Your task to perform on an android device: Open Youtube and go to "Your channel" Image 0: 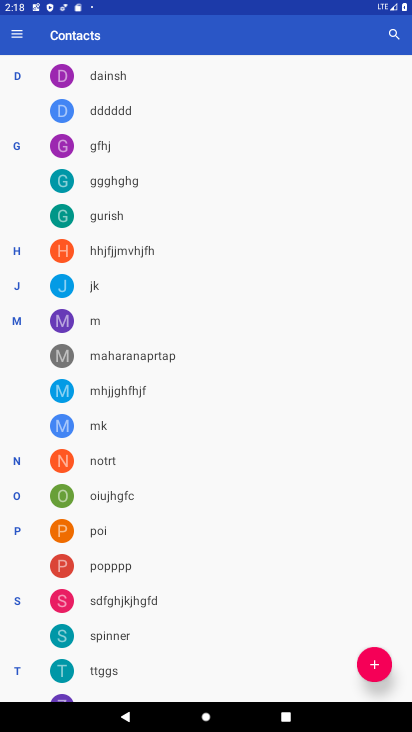
Step 0: press home button
Your task to perform on an android device: Open Youtube and go to "Your channel" Image 1: 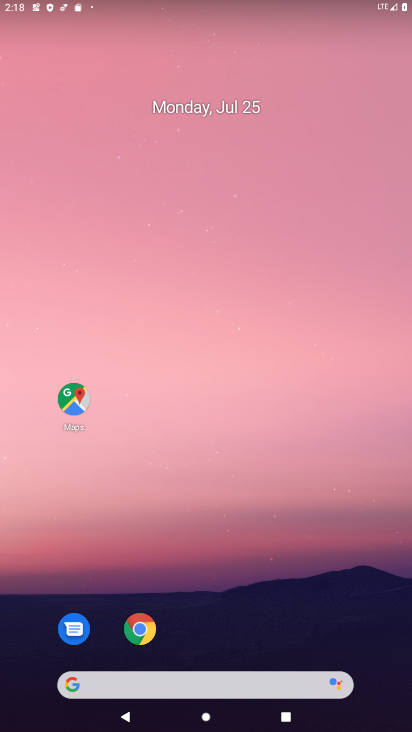
Step 1: drag from (166, 630) to (174, 213)
Your task to perform on an android device: Open Youtube and go to "Your channel" Image 2: 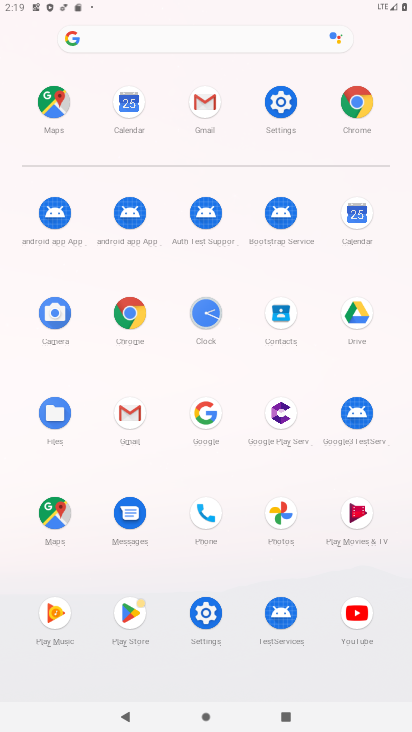
Step 2: click (354, 619)
Your task to perform on an android device: Open Youtube and go to "Your channel" Image 3: 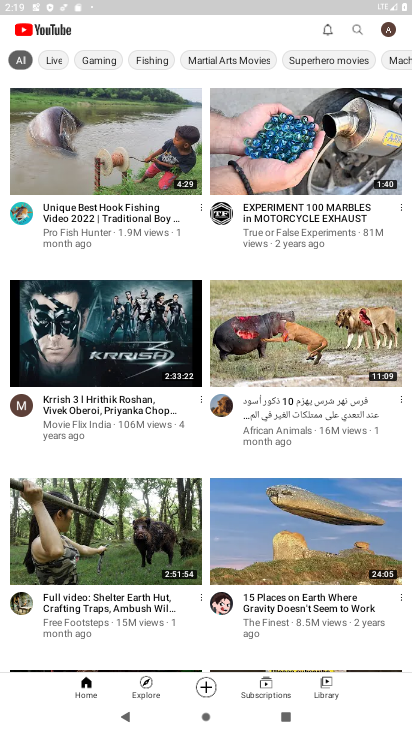
Step 3: click (390, 27)
Your task to perform on an android device: Open Youtube and go to "Your channel" Image 4: 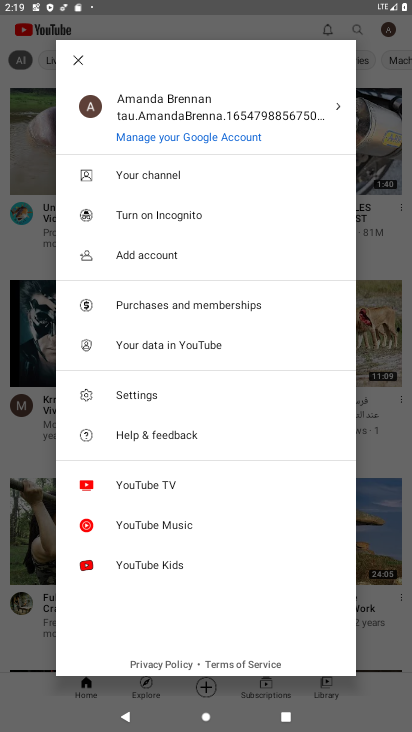
Step 4: click (93, 115)
Your task to perform on an android device: Open Youtube and go to "Your channel" Image 5: 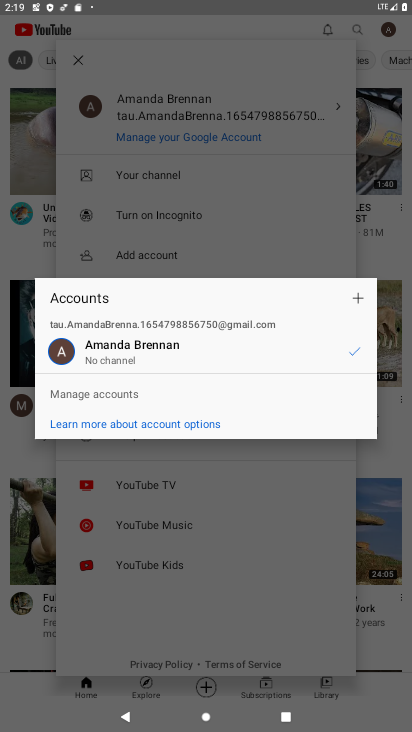
Step 5: task complete